Your task to perform on an android device: turn on the 24-hour format for clock Image 0: 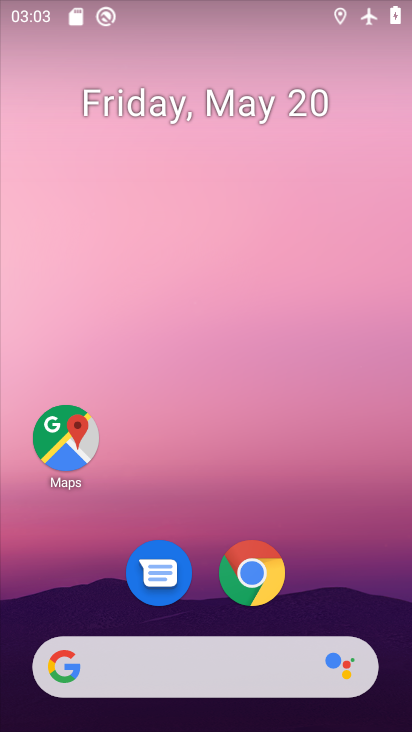
Step 0: drag from (191, 624) to (227, 279)
Your task to perform on an android device: turn on the 24-hour format for clock Image 1: 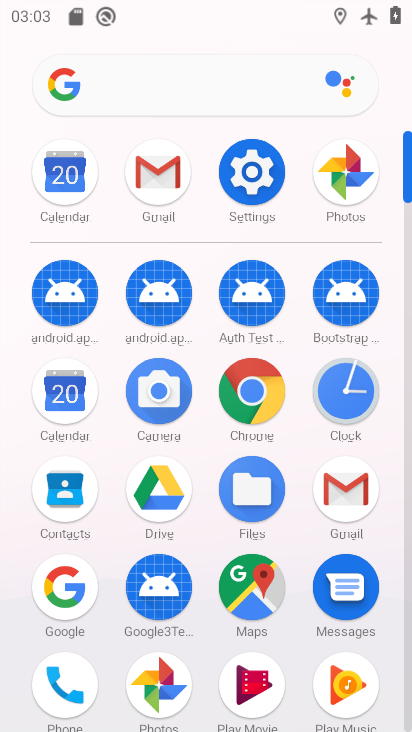
Step 1: click (355, 415)
Your task to perform on an android device: turn on the 24-hour format for clock Image 2: 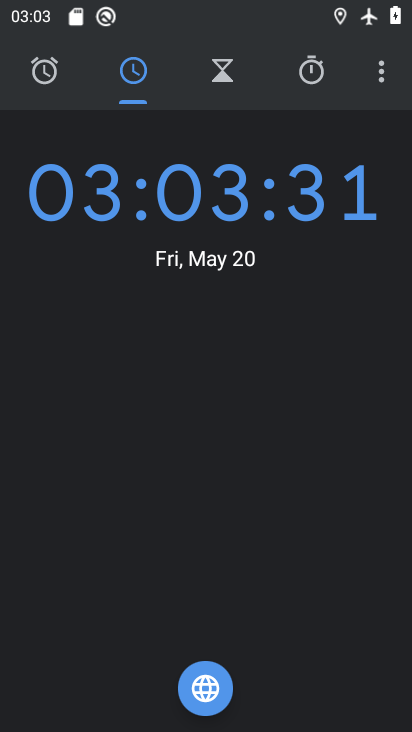
Step 2: click (387, 78)
Your task to perform on an android device: turn on the 24-hour format for clock Image 3: 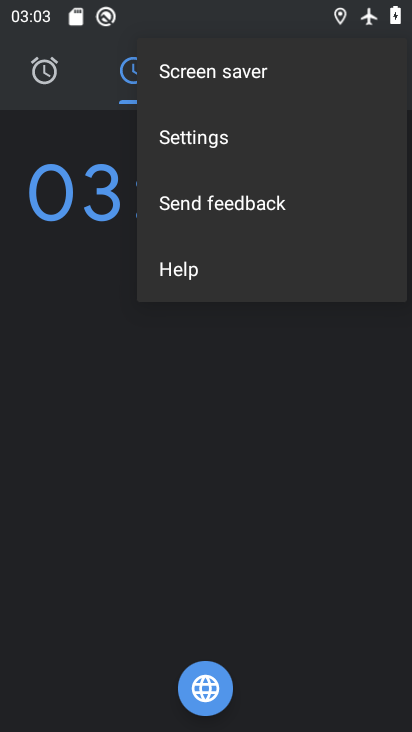
Step 3: click (210, 144)
Your task to perform on an android device: turn on the 24-hour format for clock Image 4: 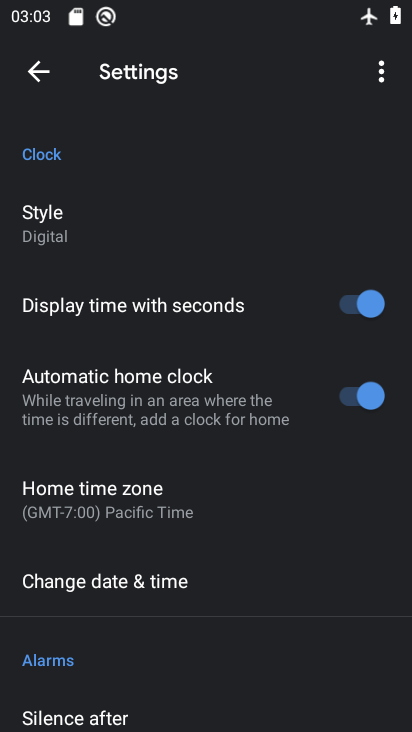
Step 4: drag from (242, 604) to (215, 305)
Your task to perform on an android device: turn on the 24-hour format for clock Image 5: 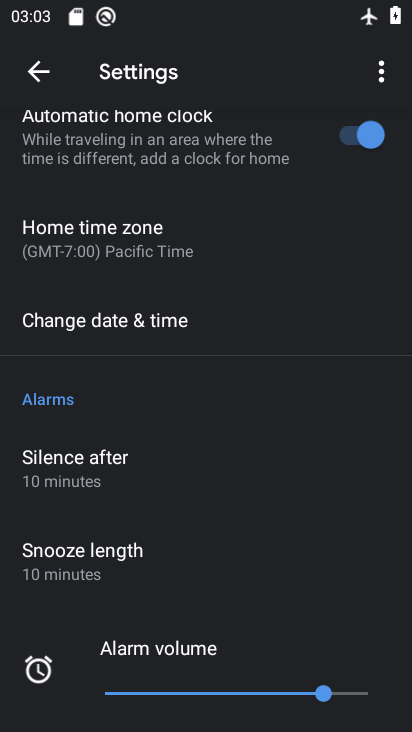
Step 5: click (197, 328)
Your task to perform on an android device: turn on the 24-hour format for clock Image 6: 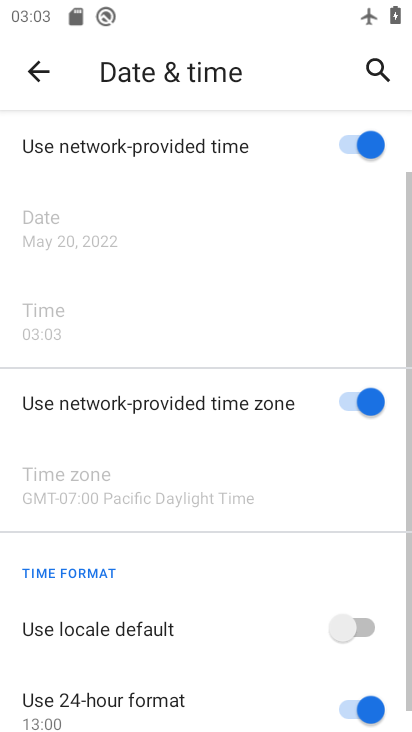
Step 6: task complete